Your task to perform on an android device: refresh tabs in the chrome app Image 0: 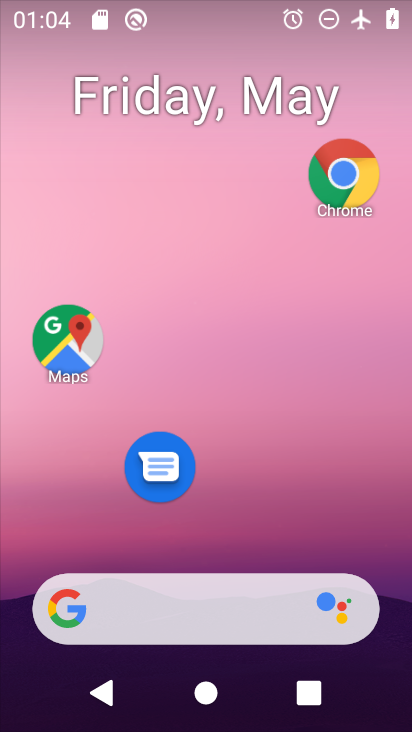
Step 0: click (364, 168)
Your task to perform on an android device: refresh tabs in the chrome app Image 1: 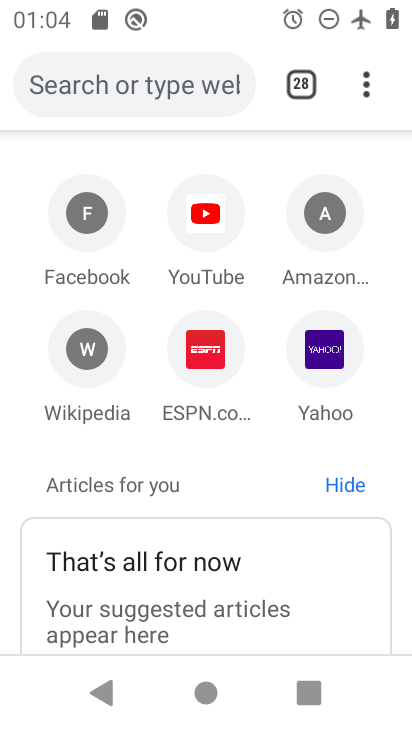
Step 1: click (371, 65)
Your task to perform on an android device: refresh tabs in the chrome app Image 2: 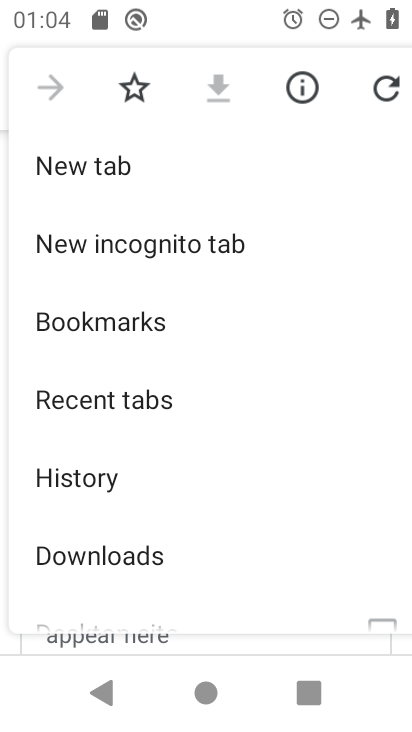
Step 2: click (379, 96)
Your task to perform on an android device: refresh tabs in the chrome app Image 3: 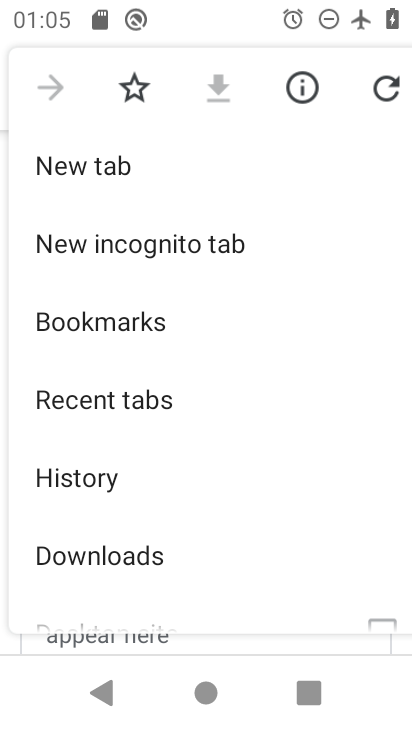
Step 3: task complete